Your task to perform on an android device: Open Maps and search for coffee Image 0: 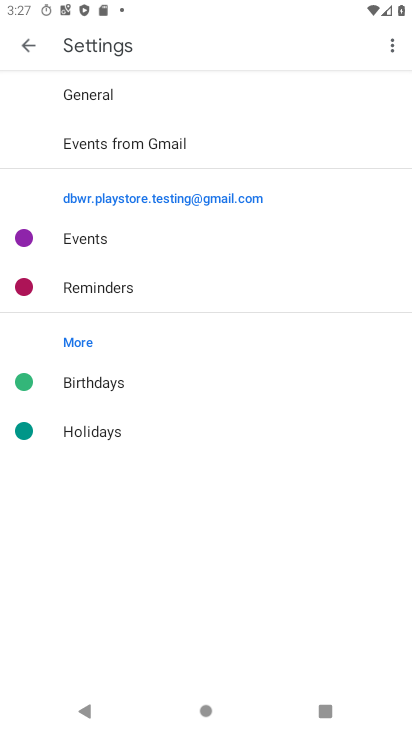
Step 0: press home button
Your task to perform on an android device: Open Maps and search for coffee Image 1: 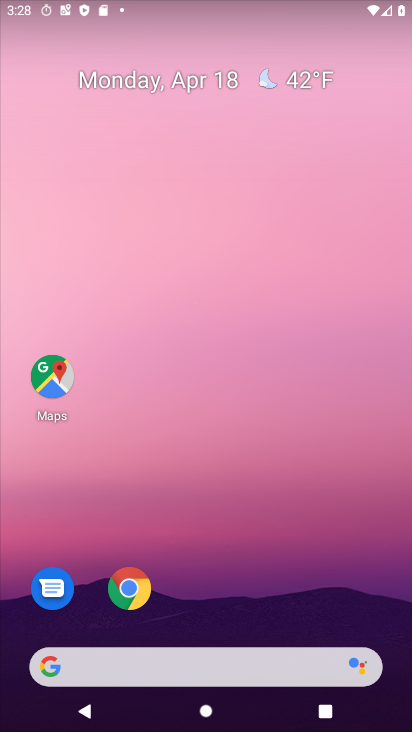
Step 1: click (58, 360)
Your task to perform on an android device: Open Maps and search for coffee Image 2: 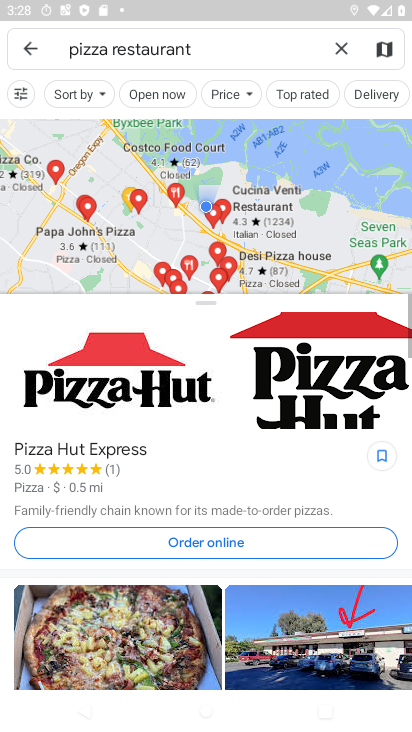
Step 2: click (346, 47)
Your task to perform on an android device: Open Maps and search for coffee Image 3: 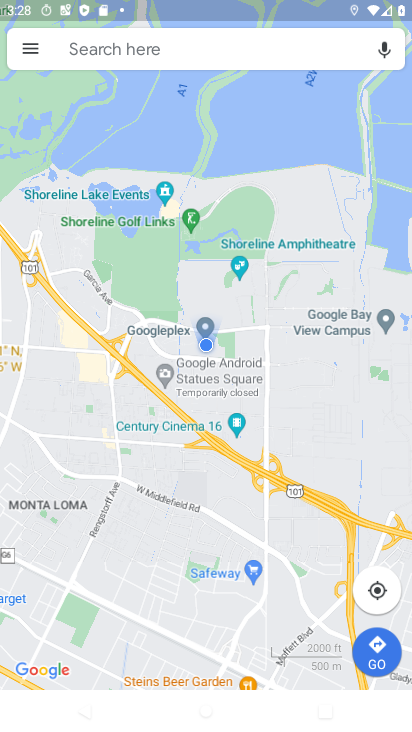
Step 3: click (283, 35)
Your task to perform on an android device: Open Maps and search for coffee Image 4: 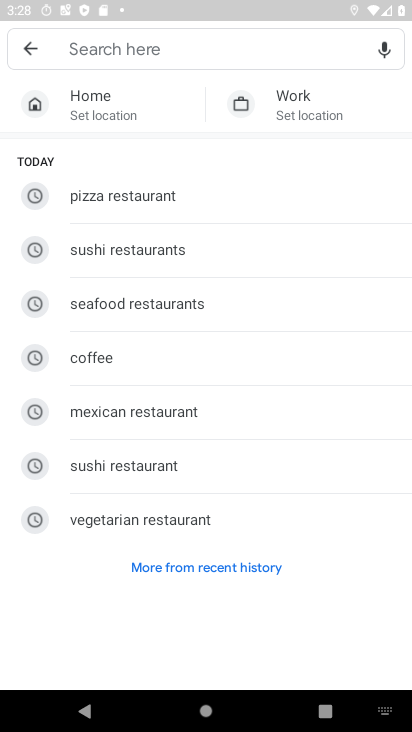
Step 4: click (158, 353)
Your task to perform on an android device: Open Maps and search for coffee Image 5: 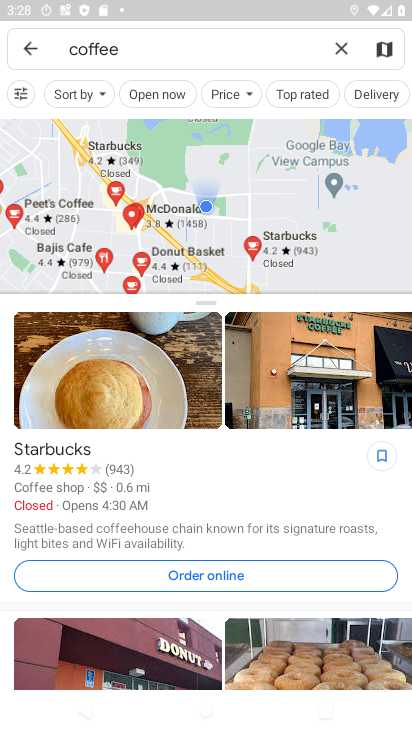
Step 5: task complete